Your task to perform on an android device: refresh tabs in the chrome app Image 0: 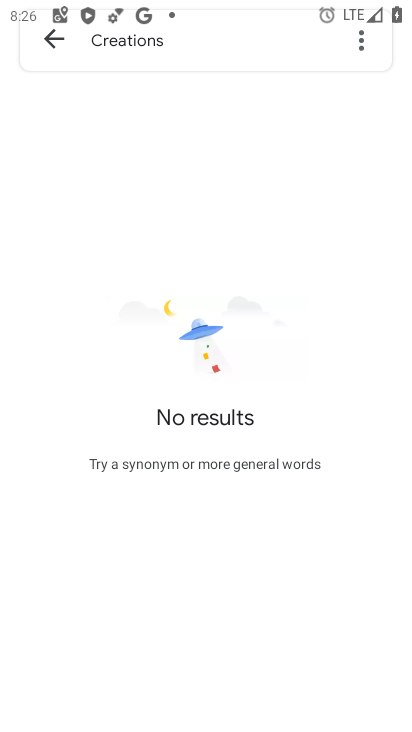
Step 0: press home button
Your task to perform on an android device: refresh tabs in the chrome app Image 1: 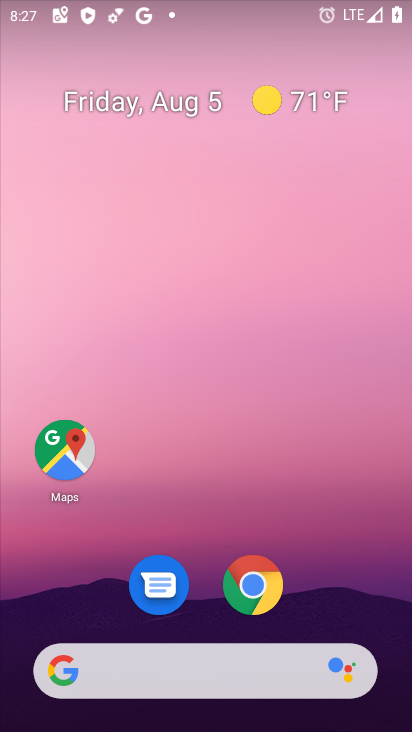
Step 1: click (270, 587)
Your task to perform on an android device: refresh tabs in the chrome app Image 2: 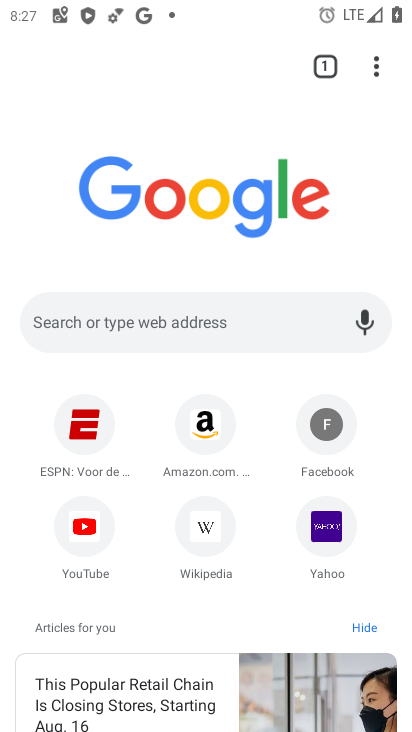
Step 2: click (373, 69)
Your task to perform on an android device: refresh tabs in the chrome app Image 3: 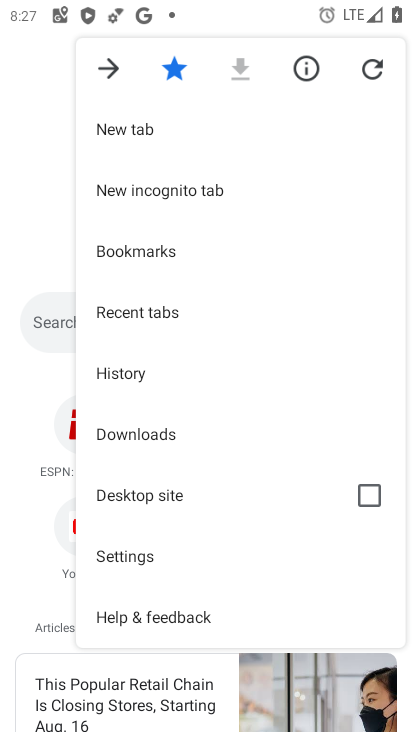
Step 3: click (372, 62)
Your task to perform on an android device: refresh tabs in the chrome app Image 4: 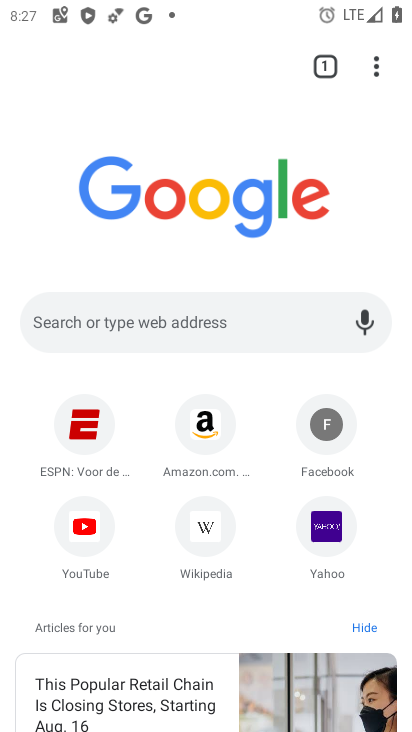
Step 4: task complete